Your task to perform on an android device: Do I have any events today? Image 0: 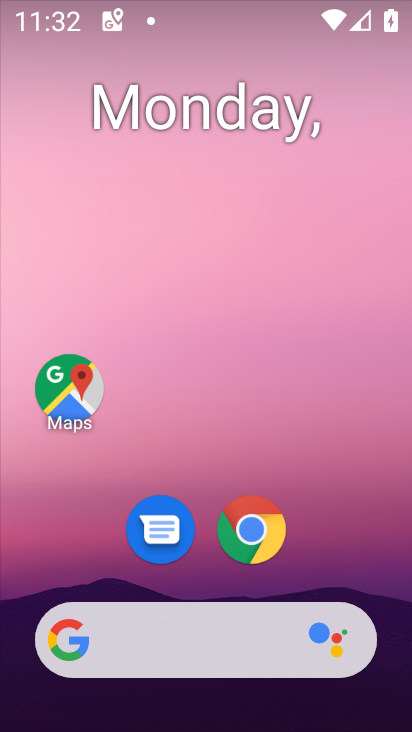
Step 0: press home button
Your task to perform on an android device: Do I have any events today? Image 1: 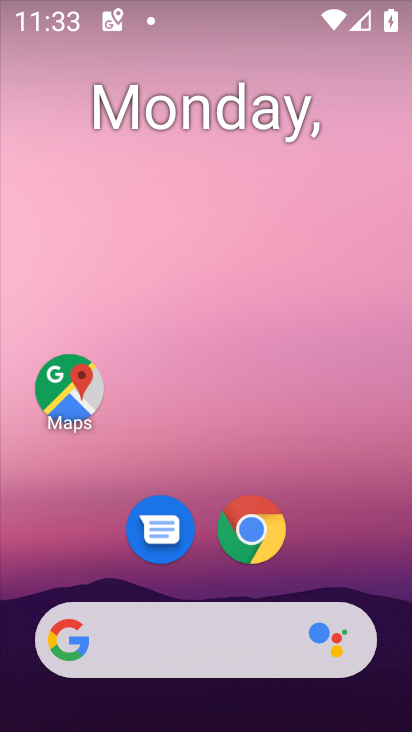
Step 1: drag from (257, 690) to (288, 130)
Your task to perform on an android device: Do I have any events today? Image 2: 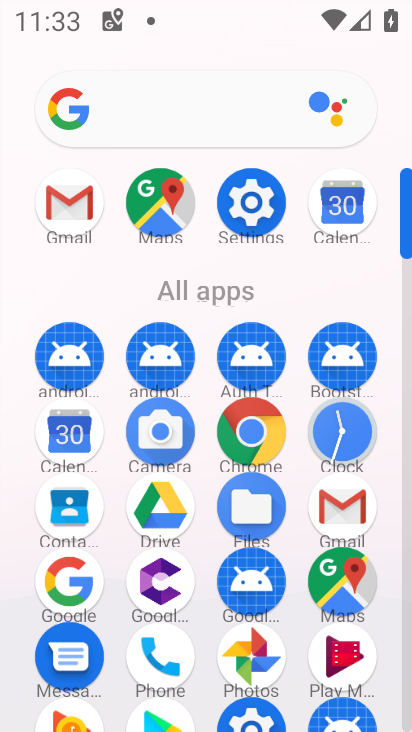
Step 2: click (87, 428)
Your task to perform on an android device: Do I have any events today? Image 3: 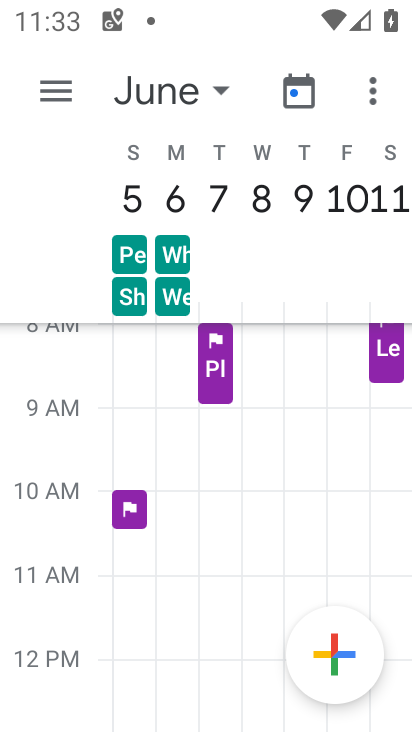
Step 3: click (52, 87)
Your task to perform on an android device: Do I have any events today? Image 4: 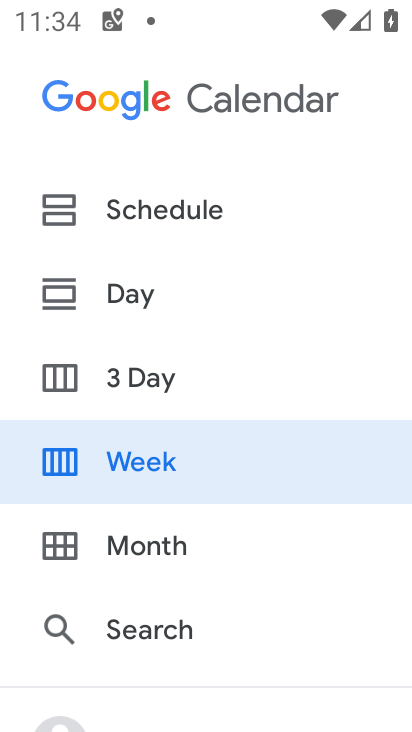
Step 4: click (139, 221)
Your task to perform on an android device: Do I have any events today? Image 5: 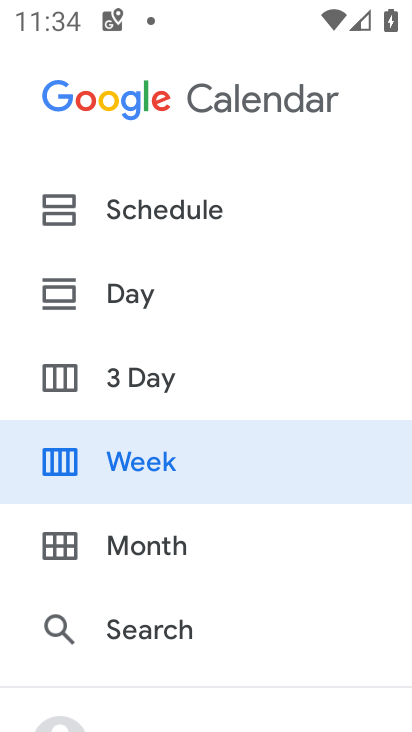
Step 5: click (139, 221)
Your task to perform on an android device: Do I have any events today? Image 6: 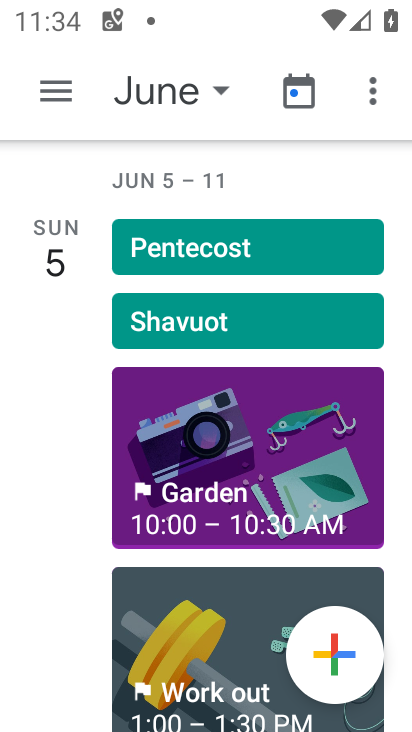
Step 6: task complete